Your task to perform on an android device: set the stopwatch Image 0: 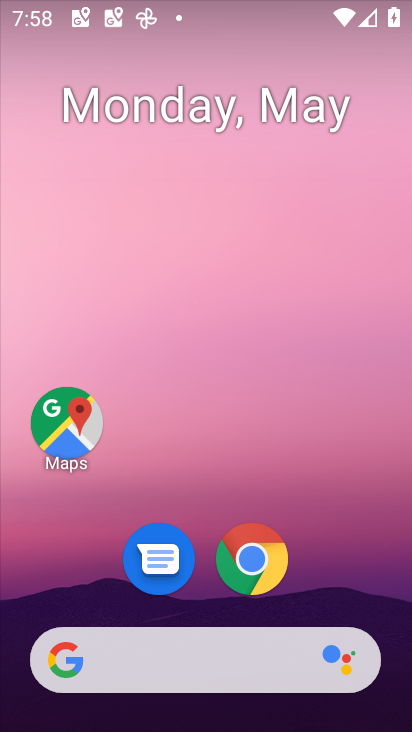
Step 0: drag from (390, 640) to (233, 101)
Your task to perform on an android device: set the stopwatch Image 1: 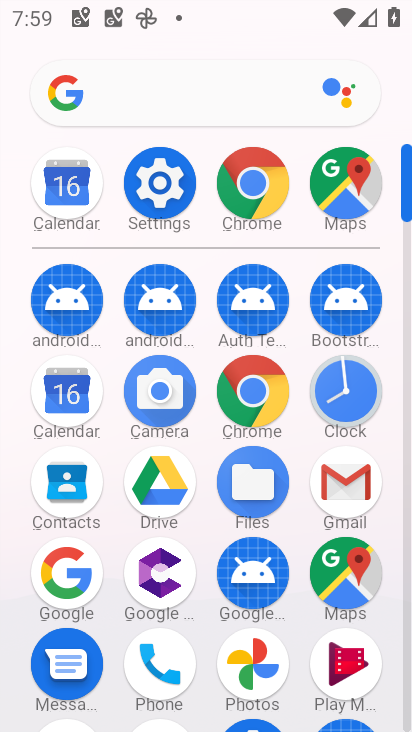
Step 1: click (338, 401)
Your task to perform on an android device: set the stopwatch Image 2: 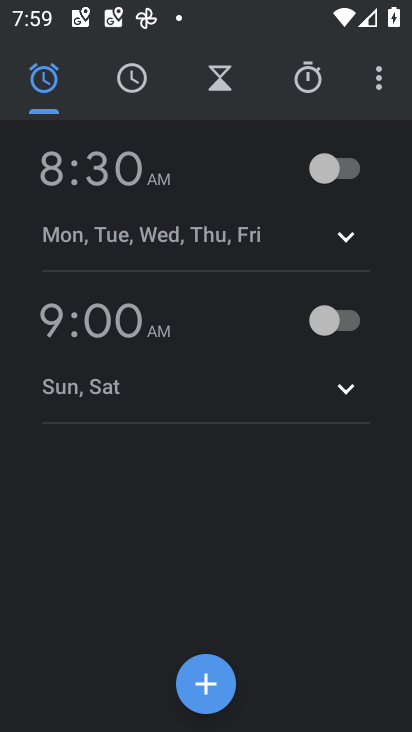
Step 2: click (307, 77)
Your task to perform on an android device: set the stopwatch Image 3: 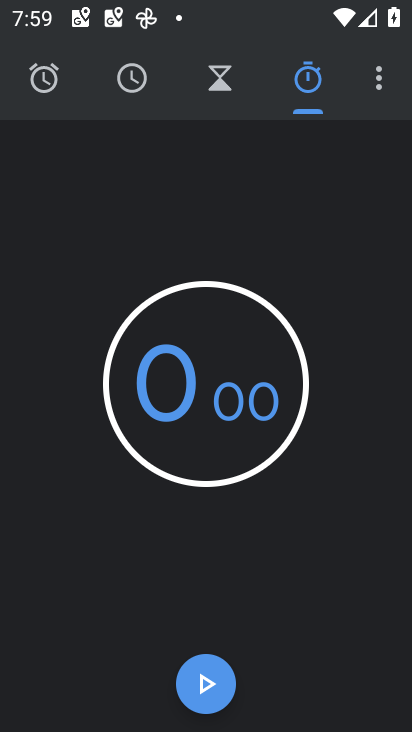
Step 3: task complete